Your task to perform on an android device: turn on javascript in the chrome app Image 0: 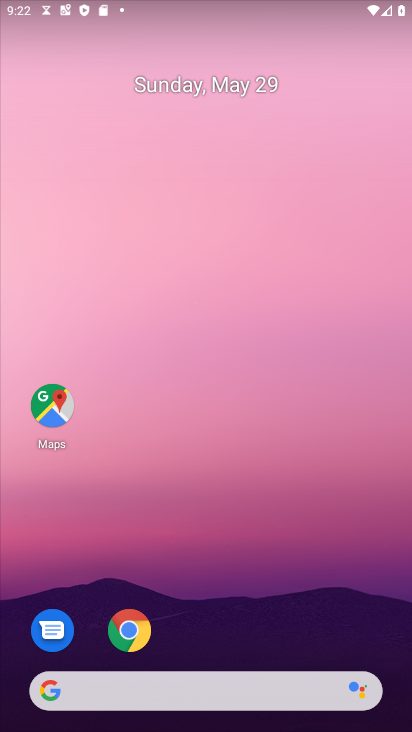
Step 0: drag from (277, 621) to (266, 353)
Your task to perform on an android device: turn on javascript in the chrome app Image 1: 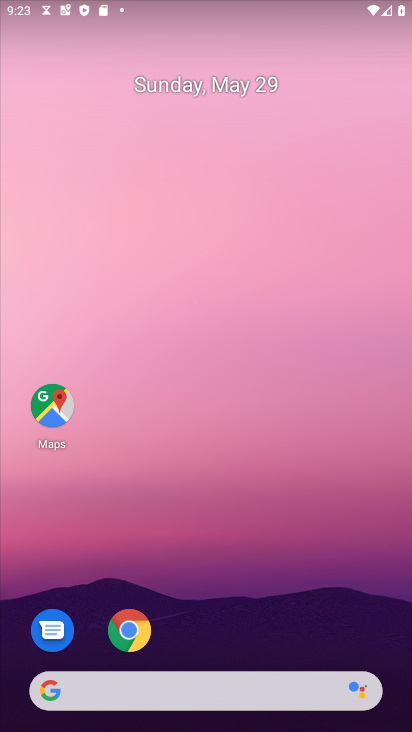
Step 1: click (123, 634)
Your task to perform on an android device: turn on javascript in the chrome app Image 2: 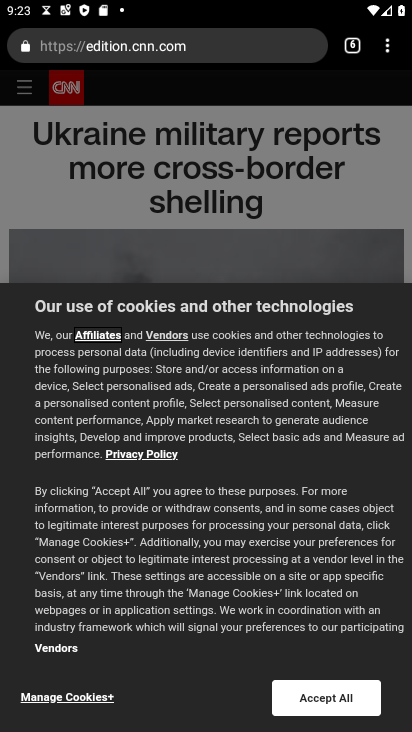
Step 2: click (393, 47)
Your task to perform on an android device: turn on javascript in the chrome app Image 3: 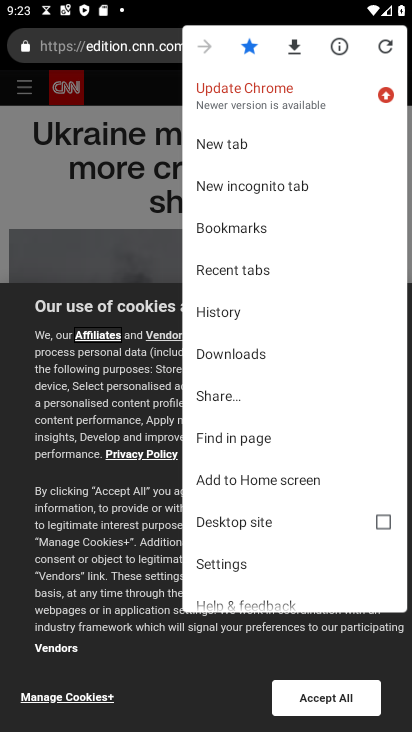
Step 3: click (227, 566)
Your task to perform on an android device: turn on javascript in the chrome app Image 4: 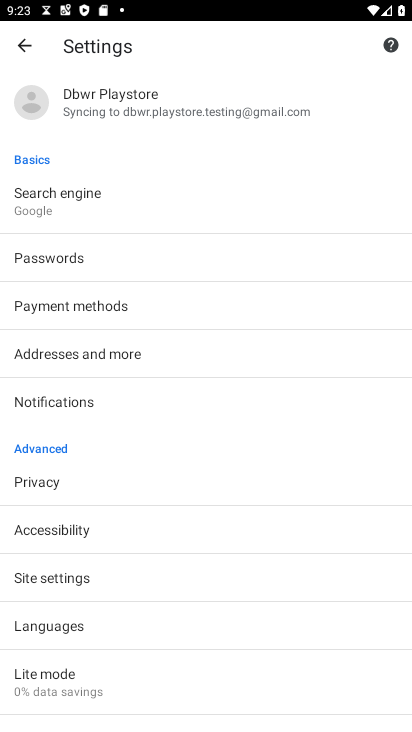
Step 4: click (126, 584)
Your task to perform on an android device: turn on javascript in the chrome app Image 5: 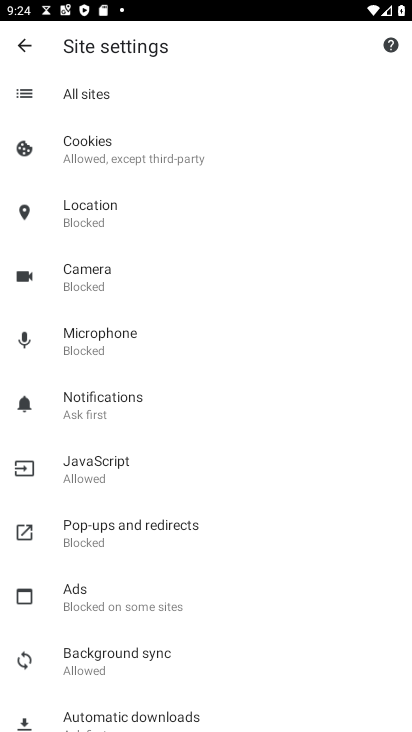
Step 5: click (124, 463)
Your task to perform on an android device: turn on javascript in the chrome app Image 6: 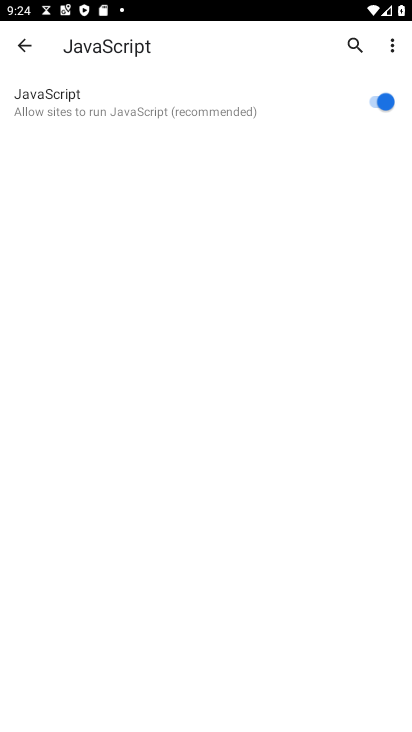
Step 6: task complete